Your task to perform on an android device: Open notification settings Image 0: 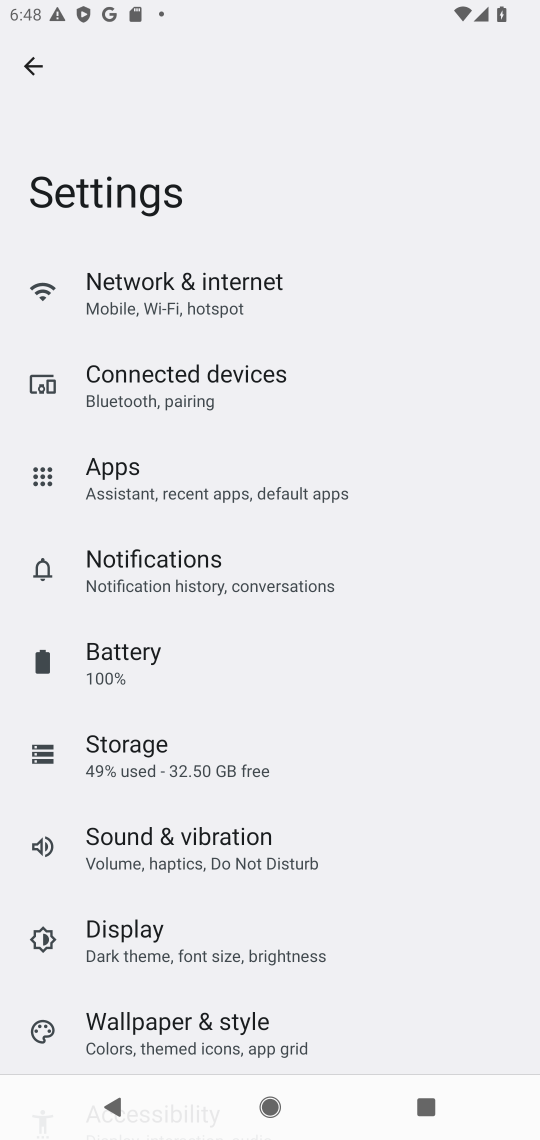
Step 0: press home button
Your task to perform on an android device: Open notification settings Image 1: 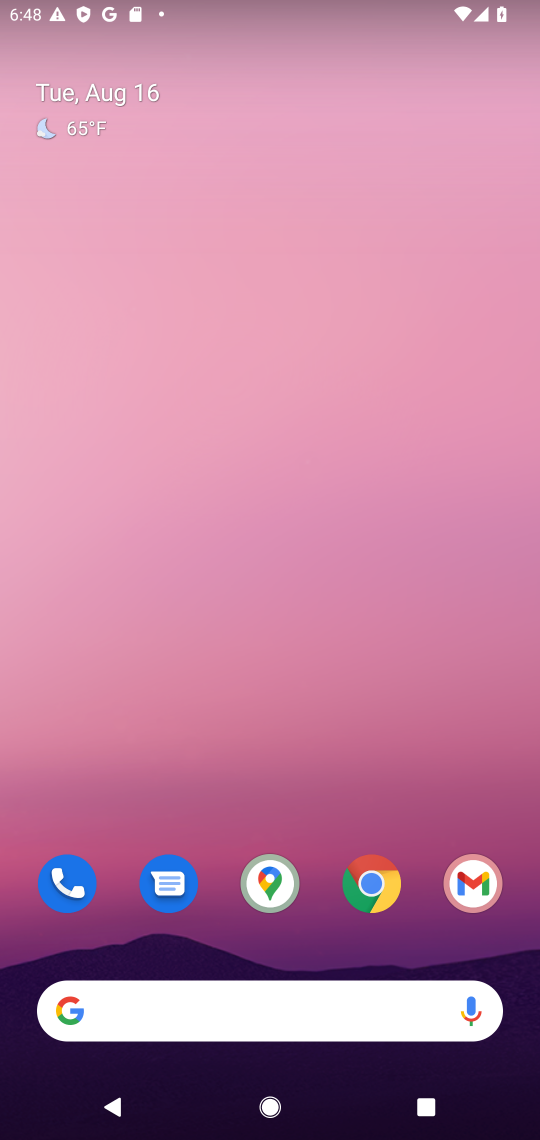
Step 1: drag from (228, 1009) to (212, 67)
Your task to perform on an android device: Open notification settings Image 2: 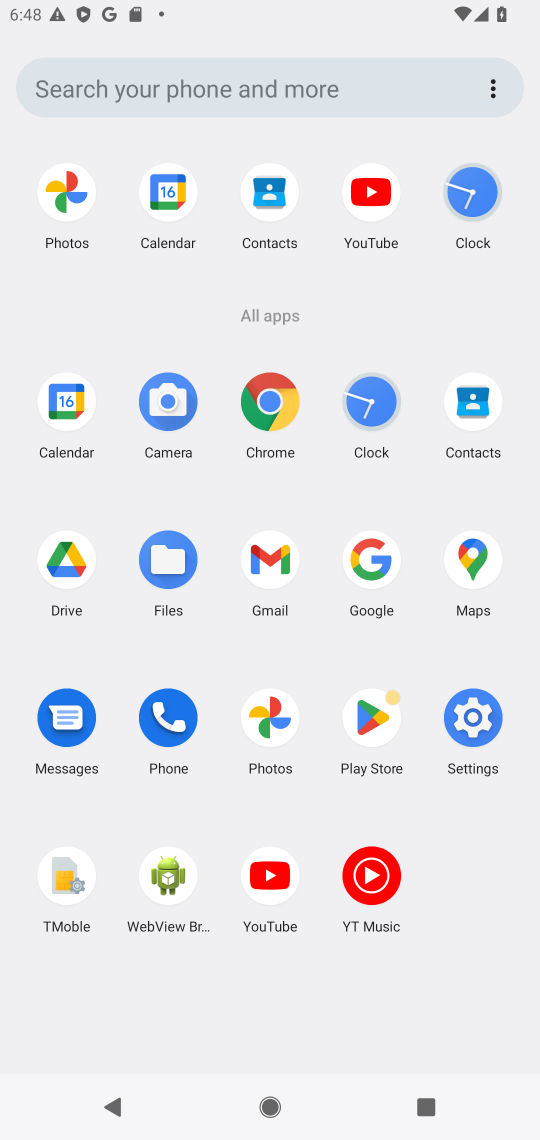
Step 2: click (473, 719)
Your task to perform on an android device: Open notification settings Image 3: 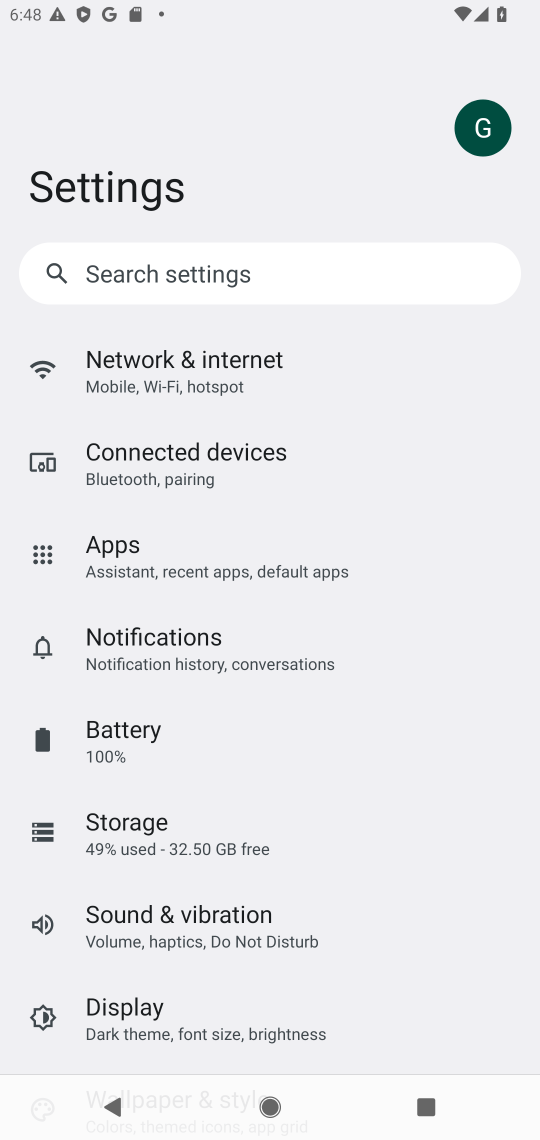
Step 3: click (176, 655)
Your task to perform on an android device: Open notification settings Image 4: 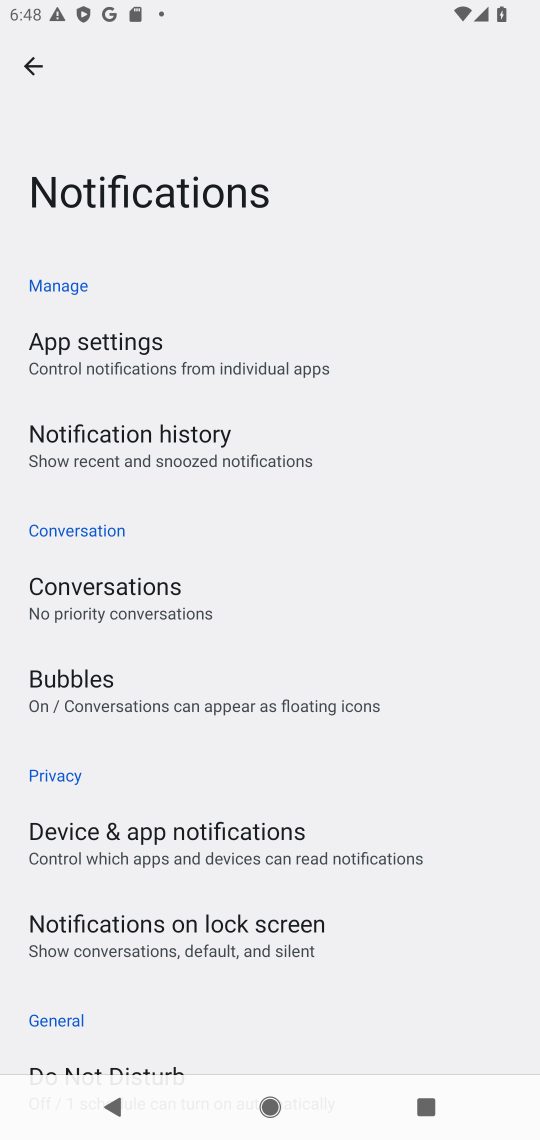
Step 4: task complete